Your task to perform on an android device: turn off translation in the chrome app Image 0: 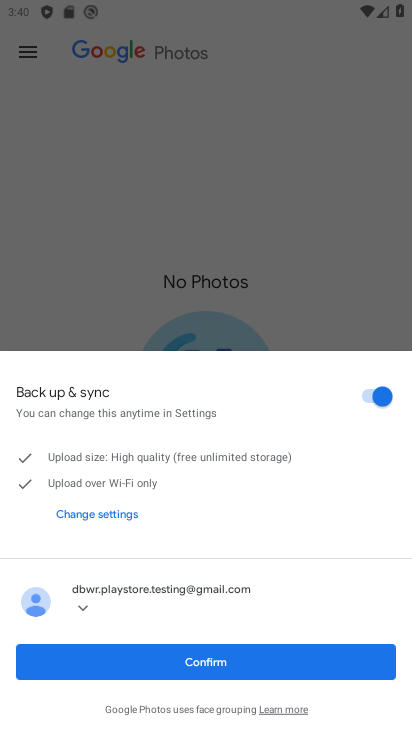
Step 0: press home button
Your task to perform on an android device: turn off translation in the chrome app Image 1: 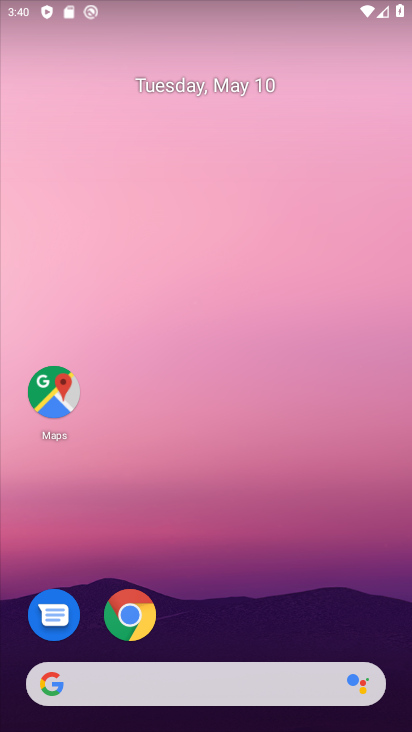
Step 1: click (142, 630)
Your task to perform on an android device: turn off translation in the chrome app Image 2: 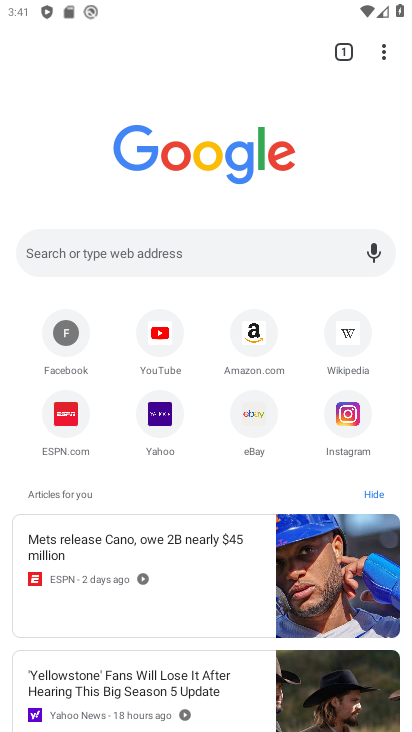
Step 2: drag from (382, 55) to (244, 431)
Your task to perform on an android device: turn off translation in the chrome app Image 3: 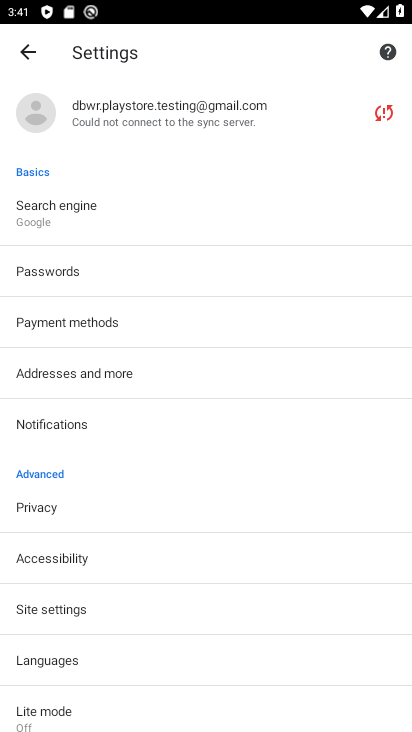
Step 3: click (96, 665)
Your task to perform on an android device: turn off translation in the chrome app Image 4: 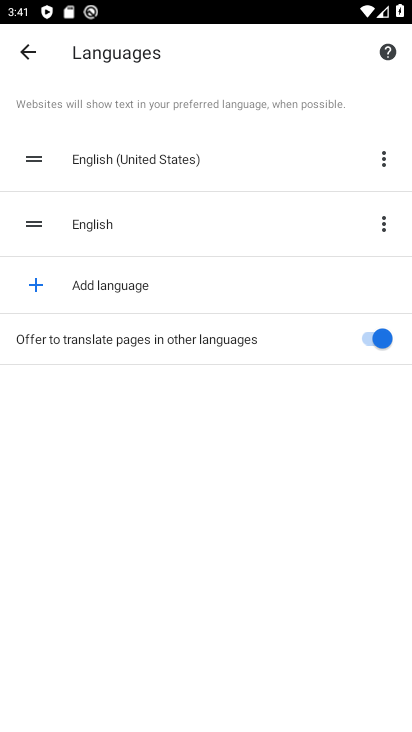
Step 4: click (370, 337)
Your task to perform on an android device: turn off translation in the chrome app Image 5: 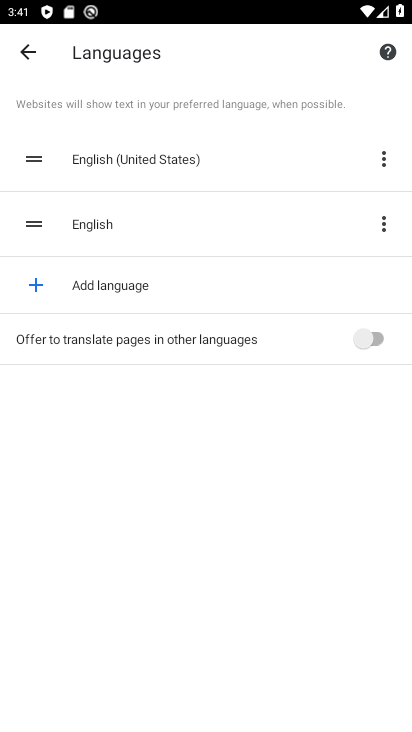
Step 5: task complete